Your task to perform on an android device: Clear the cart on walmart. Image 0: 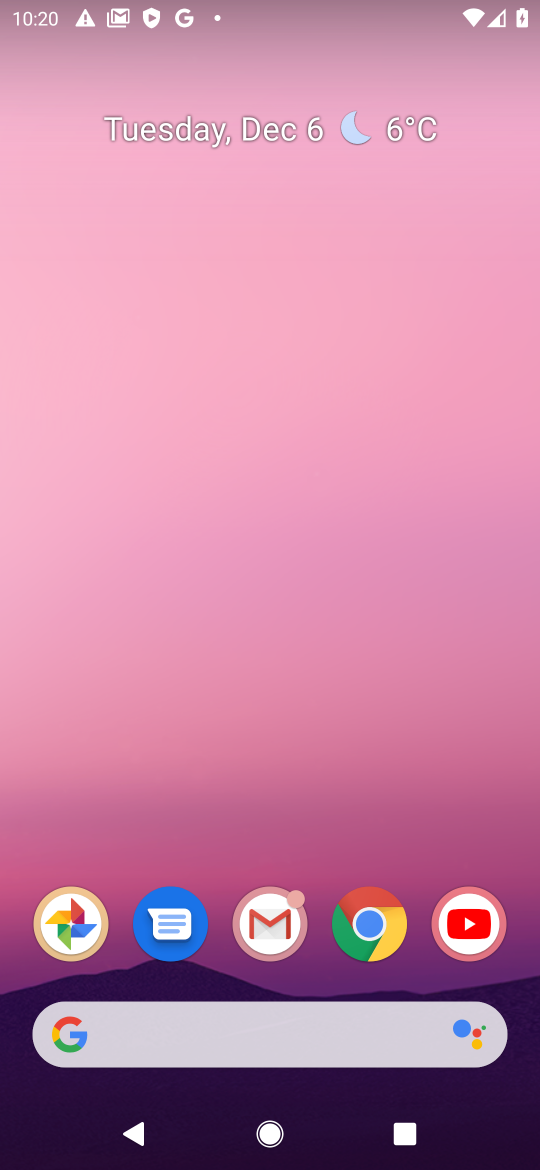
Step 0: drag from (208, 1017) to (199, 257)
Your task to perform on an android device: Clear the cart on walmart. Image 1: 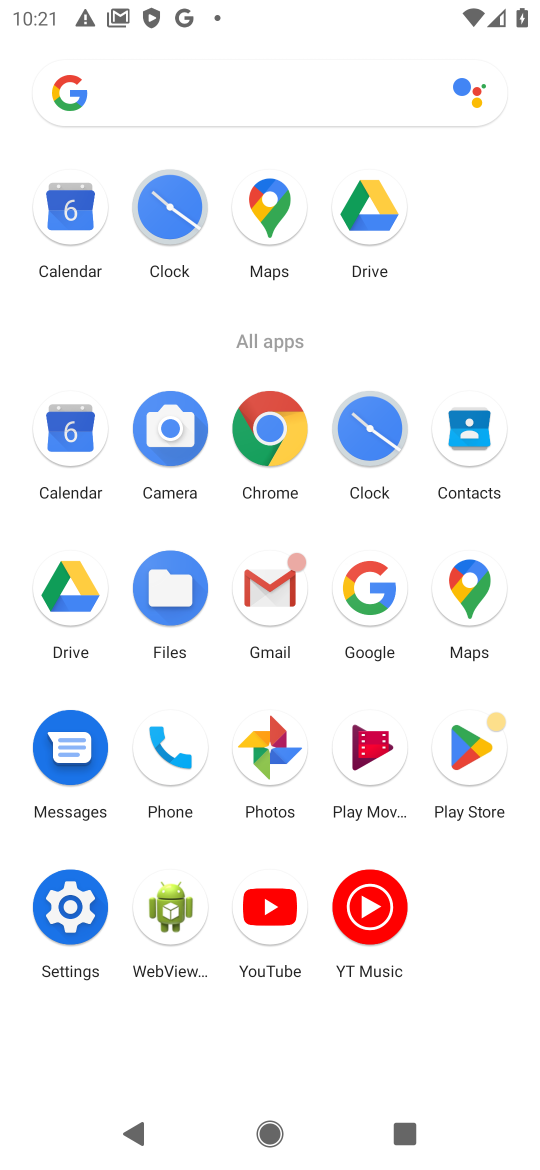
Step 1: click (373, 596)
Your task to perform on an android device: Clear the cart on walmart. Image 2: 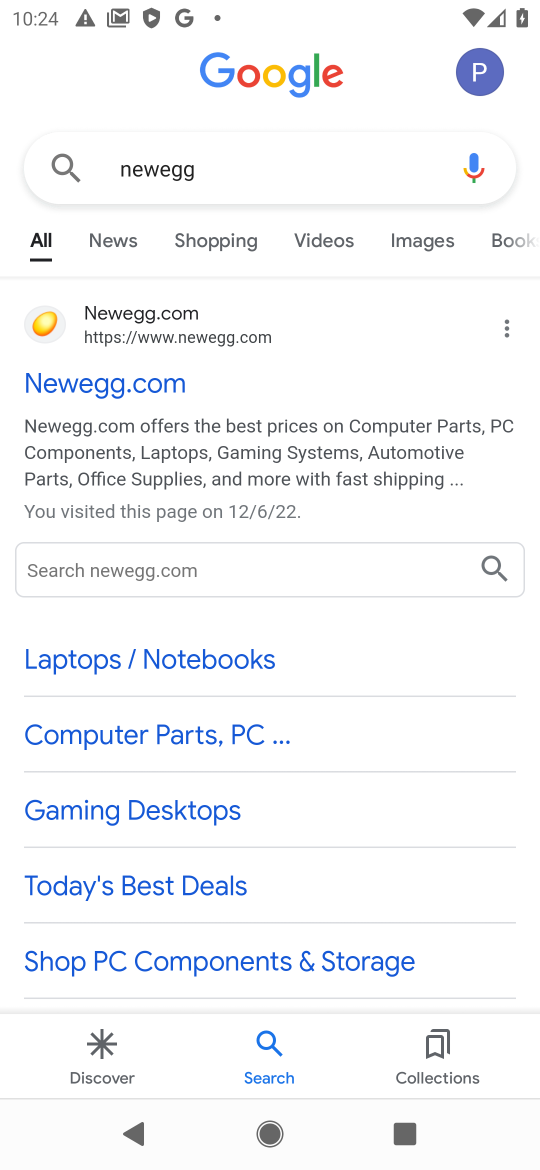
Step 2: click (168, 169)
Your task to perform on an android device: Clear the cart on walmart. Image 3: 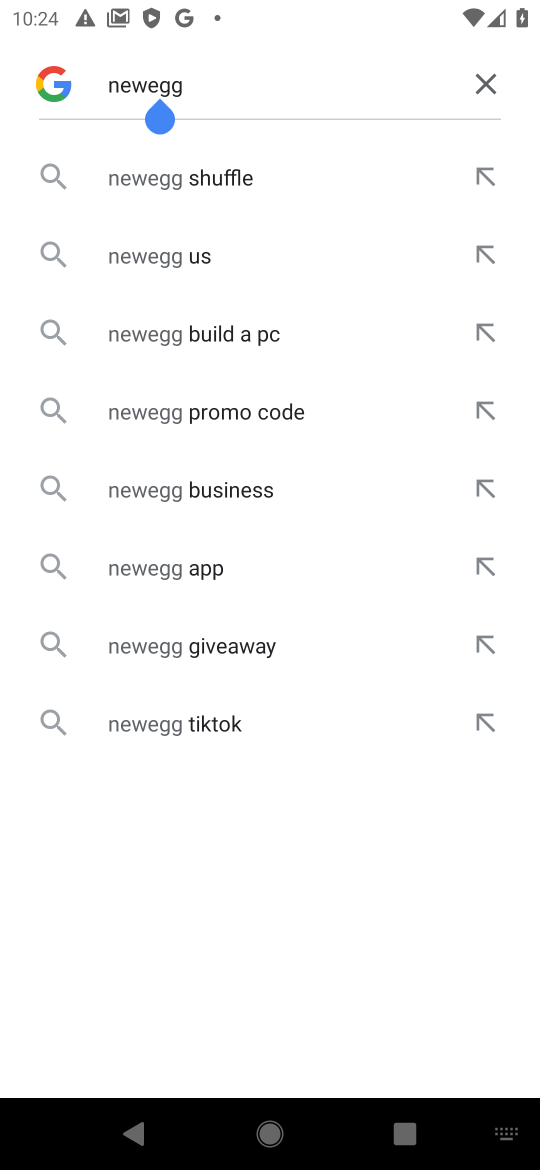
Step 3: click (477, 85)
Your task to perform on an android device: Clear the cart on walmart. Image 4: 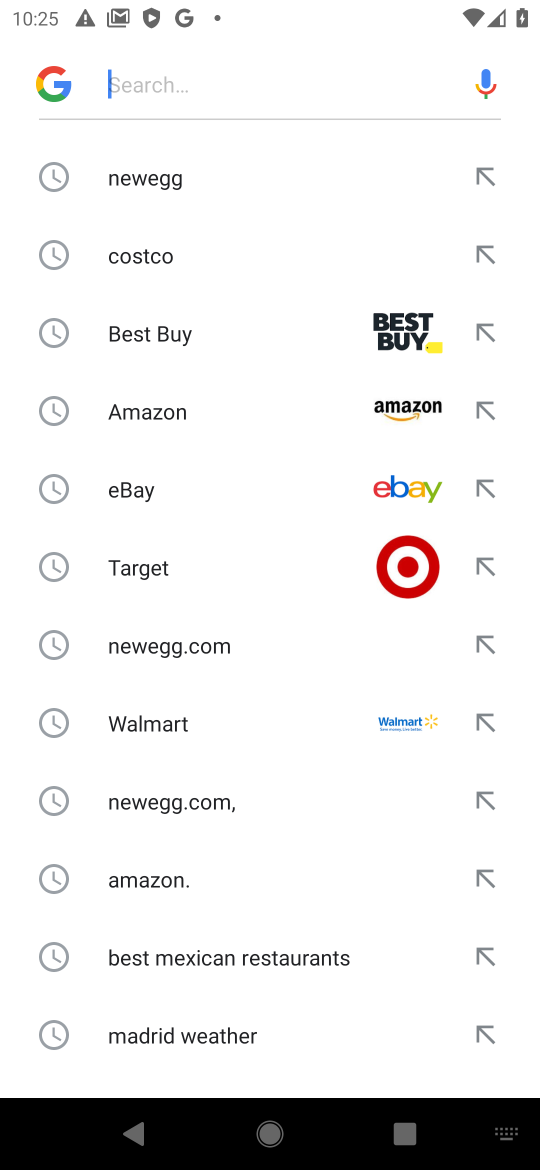
Step 4: click (417, 716)
Your task to perform on an android device: Clear the cart on walmart. Image 5: 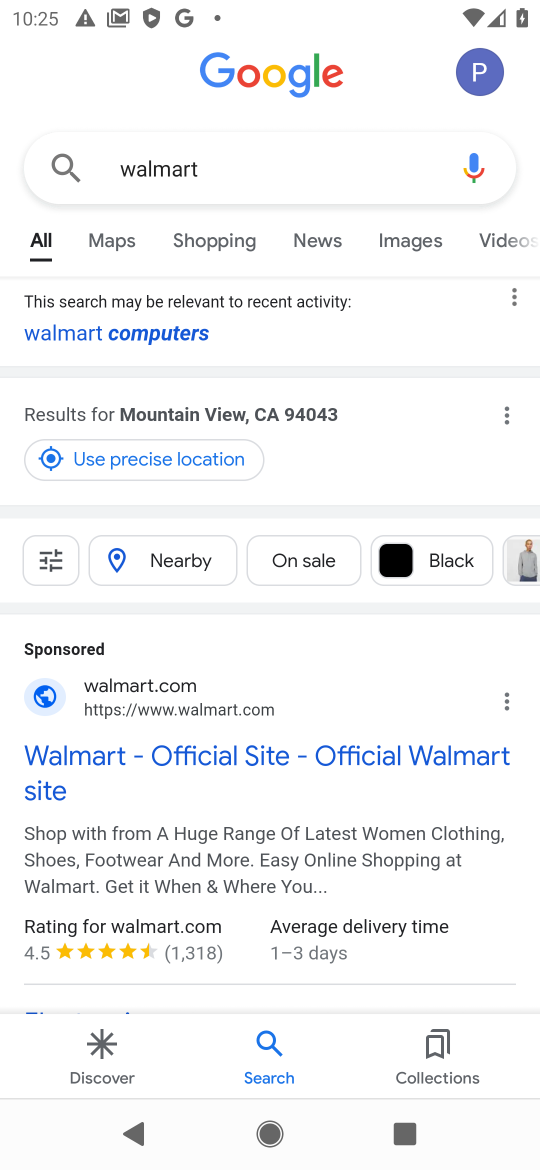
Step 5: click (180, 750)
Your task to perform on an android device: Clear the cart on walmart. Image 6: 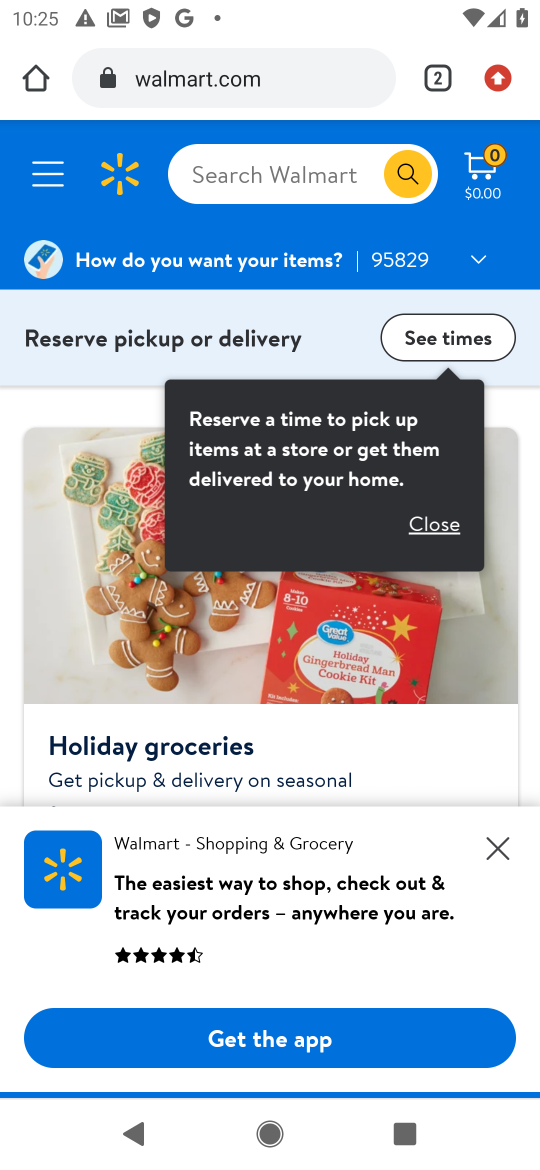
Step 6: click (503, 852)
Your task to perform on an android device: Clear the cart on walmart. Image 7: 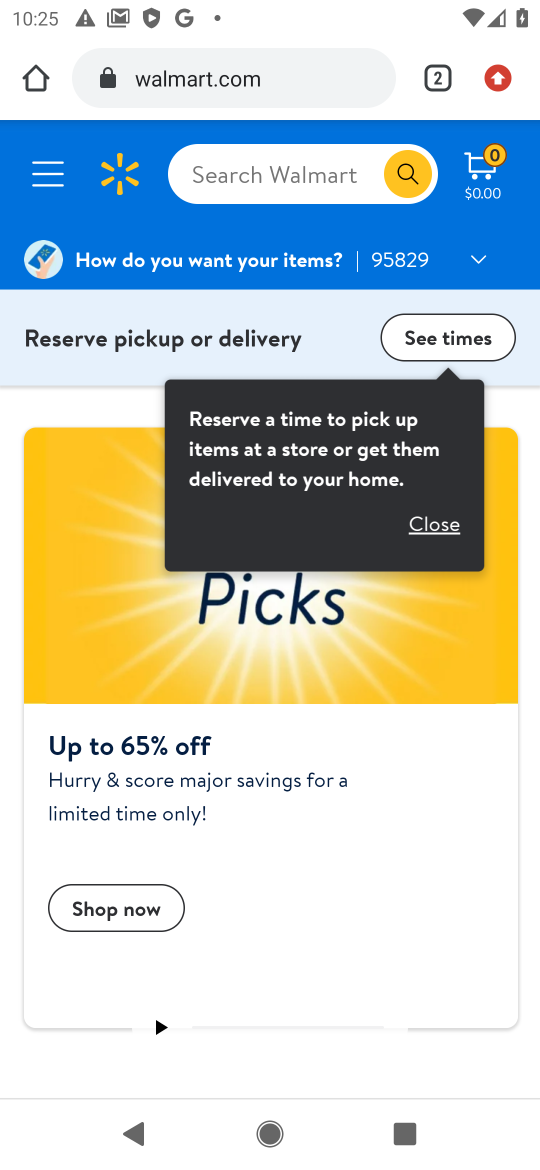
Step 7: click (211, 189)
Your task to perform on an android device: Clear the cart on walmart. Image 8: 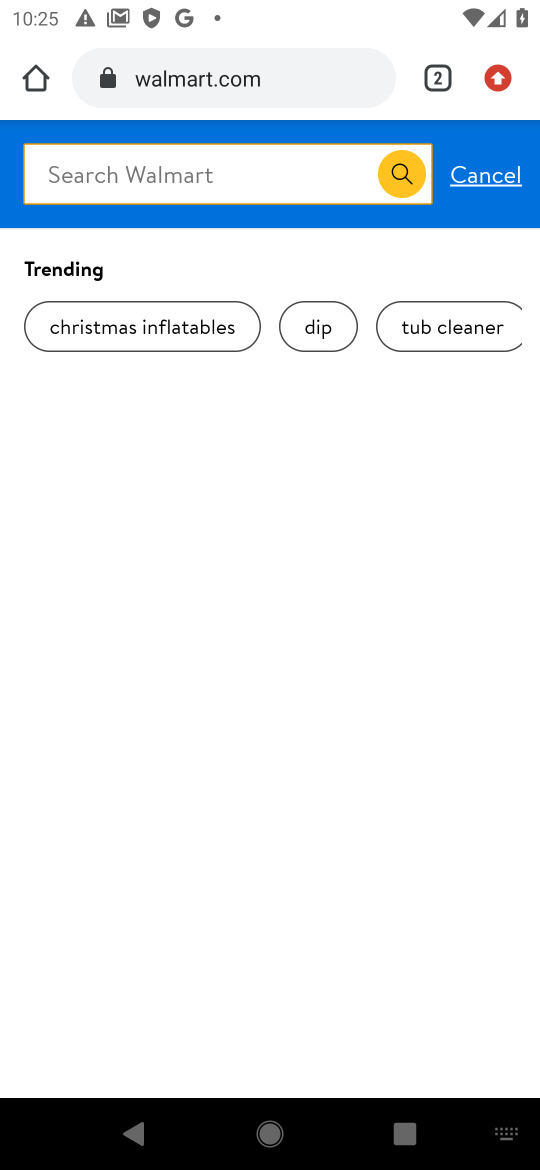
Step 8: task complete